Your task to perform on an android device: See recent photos Image 0: 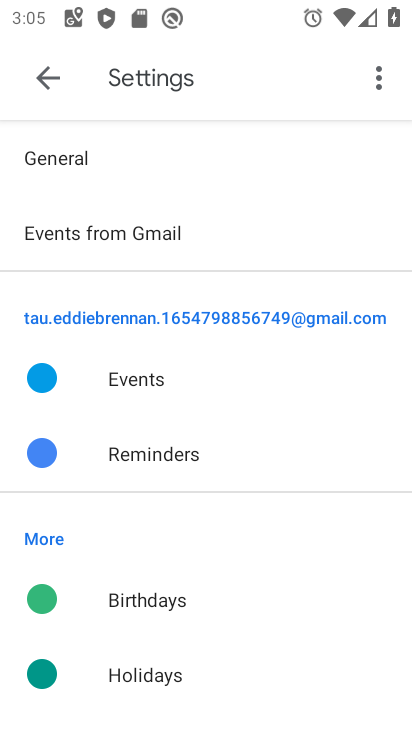
Step 0: press home button
Your task to perform on an android device: See recent photos Image 1: 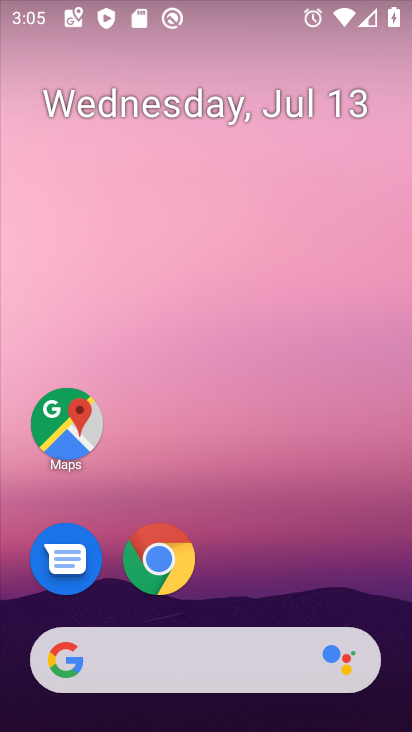
Step 1: drag from (359, 509) to (353, 72)
Your task to perform on an android device: See recent photos Image 2: 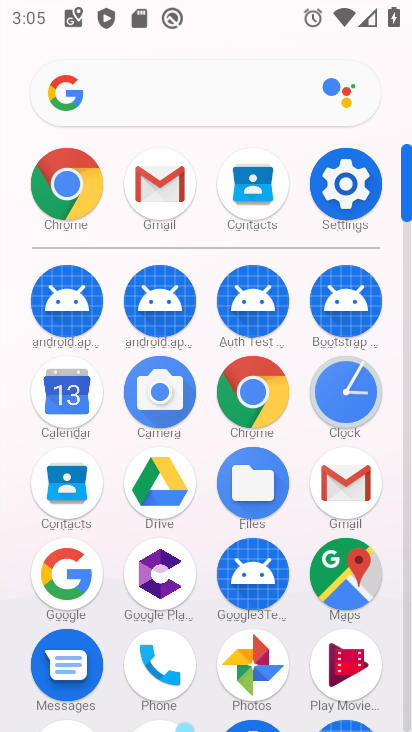
Step 2: click (263, 661)
Your task to perform on an android device: See recent photos Image 3: 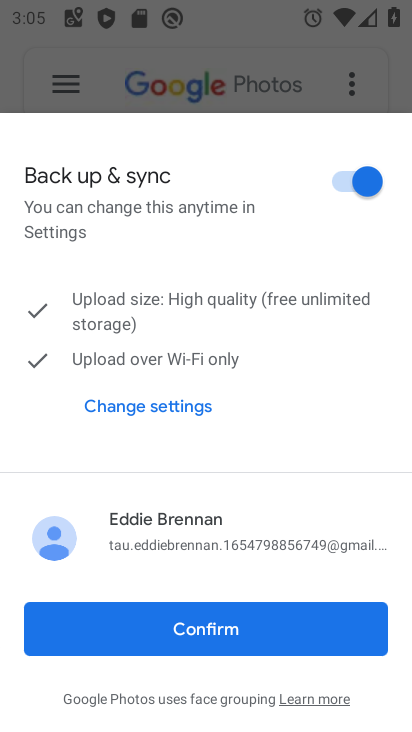
Step 3: click (241, 623)
Your task to perform on an android device: See recent photos Image 4: 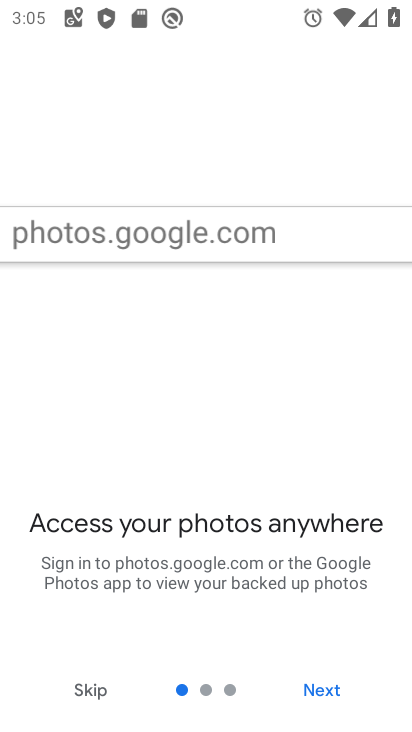
Step 4: click (332, 683)
Your task to perform on an android device: See recent photos Image 5: 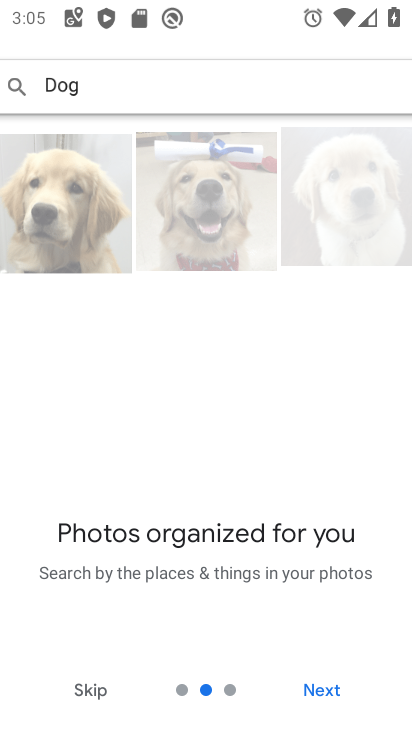
Step 5: click (332, 683)
Your task to perform on an android device: See recent photos Image 6: 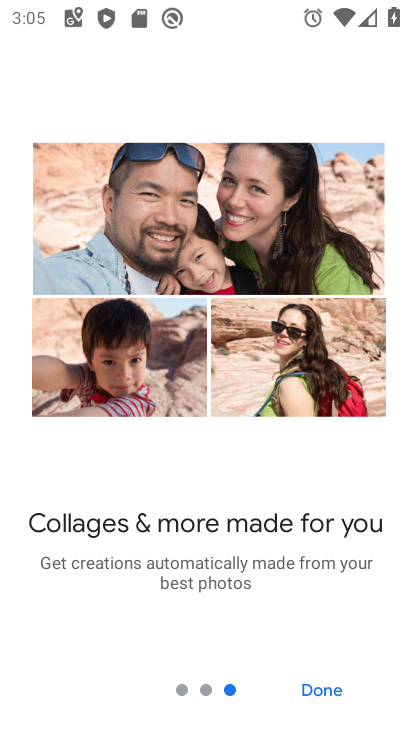
Step 6: click (320, 694)
Your task to perform on an android device: See recent photos Image 7: 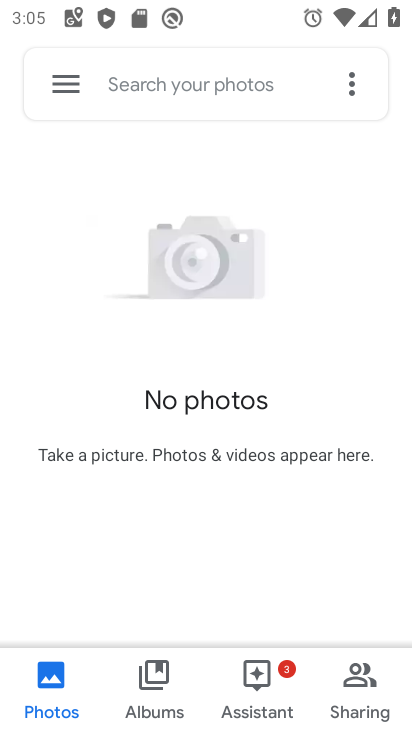
Step 7: task complete